Your task to perform on an android device: turn off sleep mode Image 0: 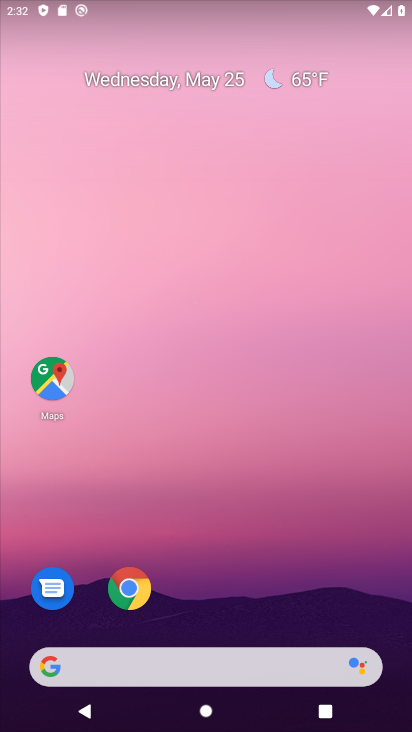
Step 0: drag from (218, 607) to (234, 244)
Your task to perform on an android device: turn off sleep mode Image 1: 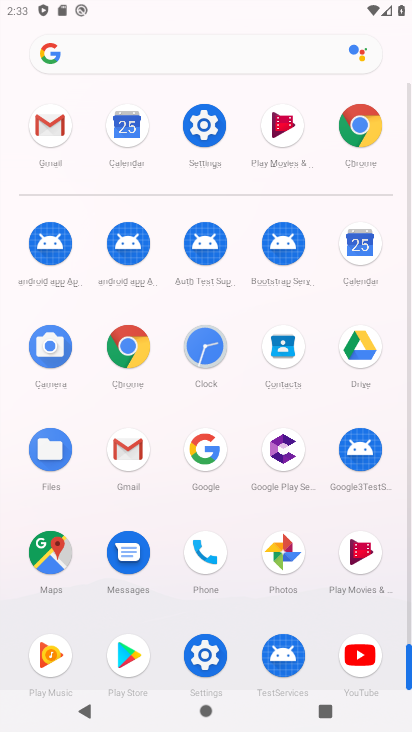
Step 1: click (204, 123)
Your task to perform on an android device: turn off sleep mode Image 2: 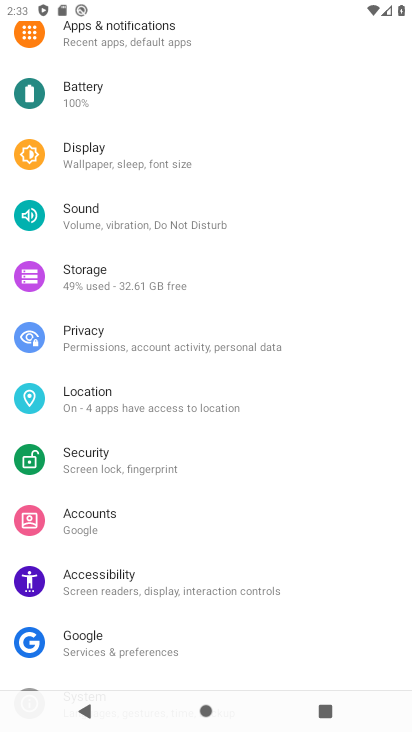
Step 2: click (148, 162)
Your task to perform on an android device: turn off sleep mode Image 3: 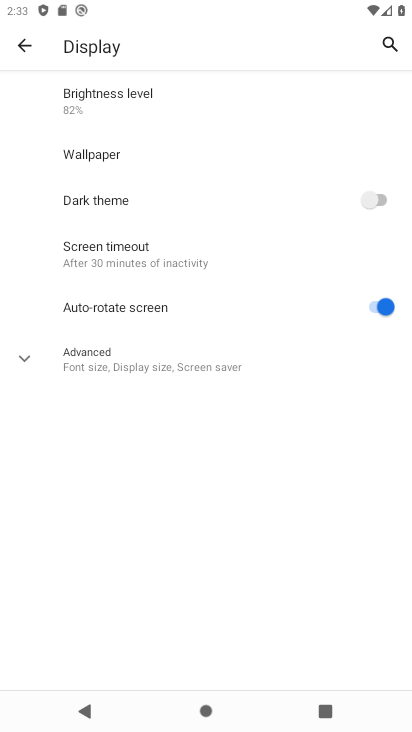
Step 3: task complete